Your task to perform on an android device: What's the weather today? Image 0: 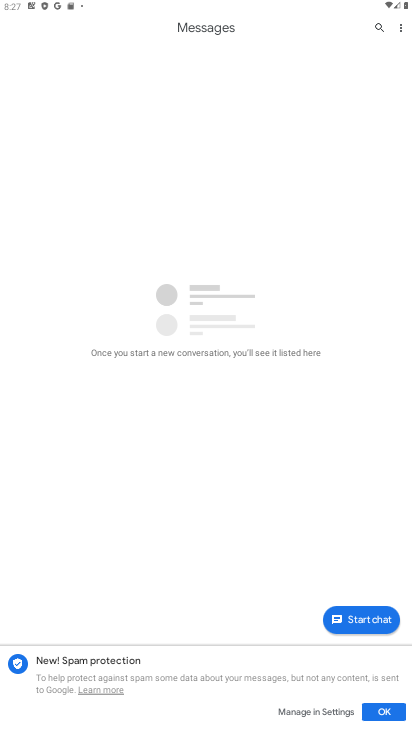
Step 0: press home button
Your task to perform on an android device: What's the weather today? Image 1: 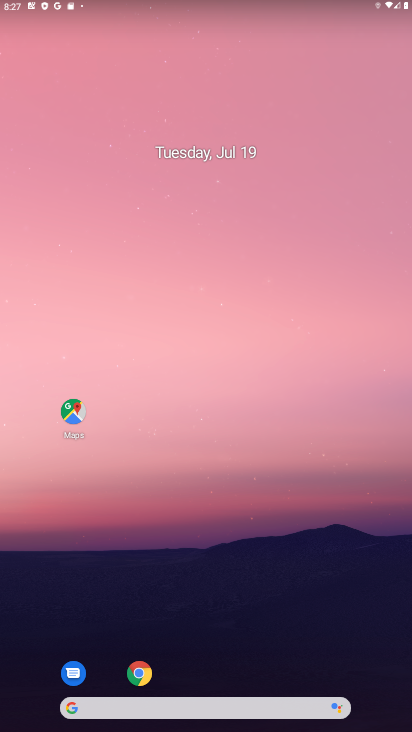
Step 1: drag from (166, 683) to (239, 72)
Your task to perform on an android device: What's the weather today? Image 2: 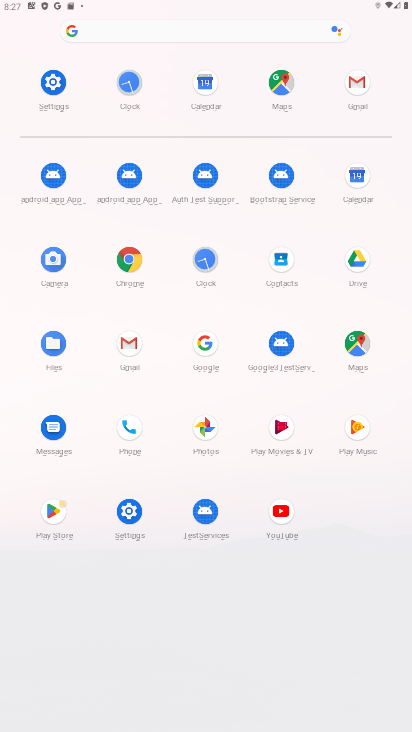
Step 2: click (235, 34)
Your task to perform on an android device: What's the weather today? Image 3: 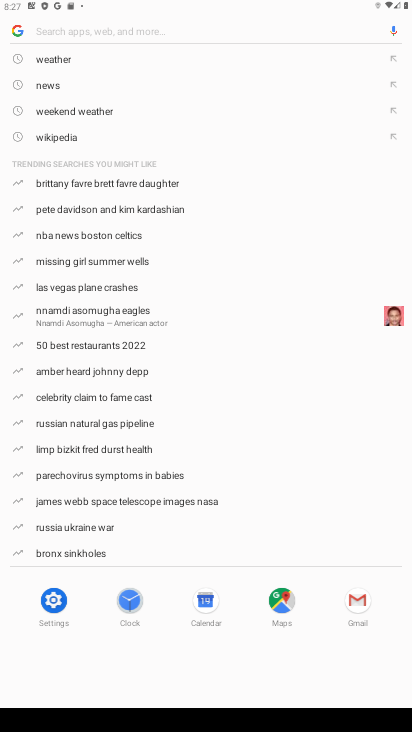
Step 3: click (157, 57)
Your task to perform on an android device: What's the weather today? Image 4: 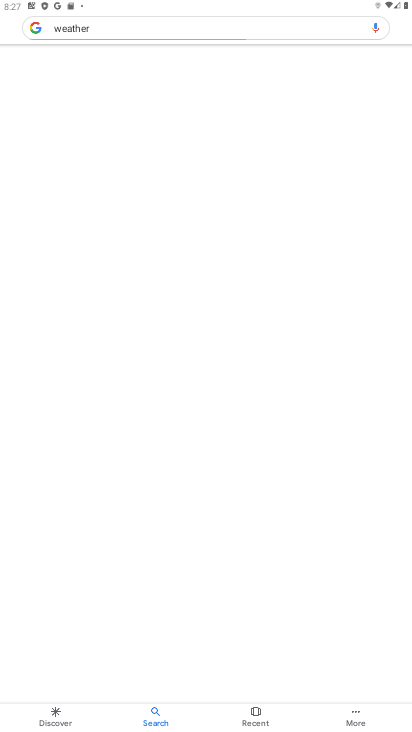
Step 4: task complete